Your task to perform on an android device: Go to internet settings Image 0: 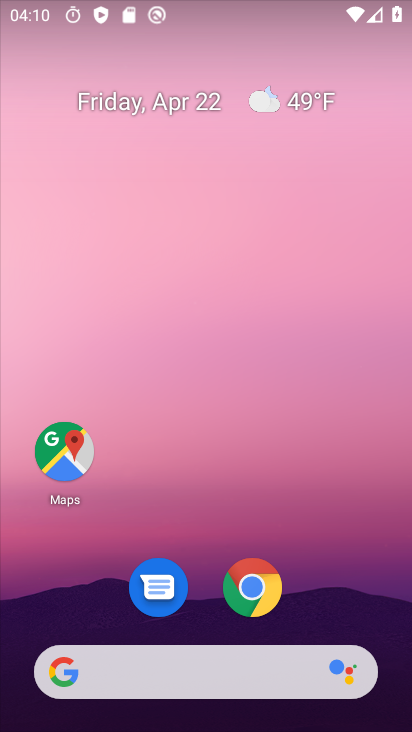
Step 0: drag from (363, 613) to (360, 33)
Your task to perform on an android device: Go to internet settings Image 1: 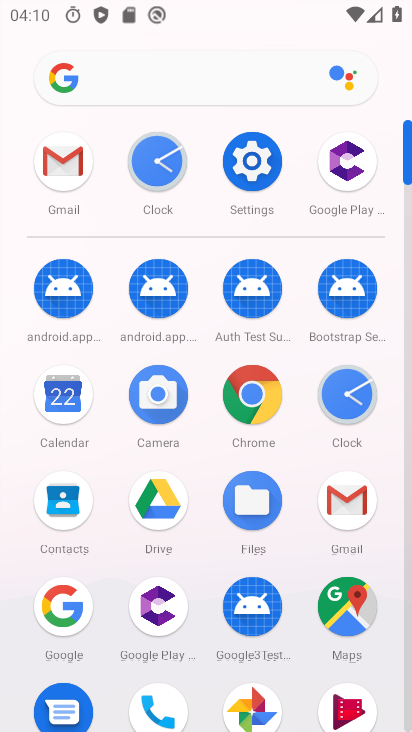
Step 1: click (251, 167)
Your task to perform on an android device: Go to internet settings Image 2: 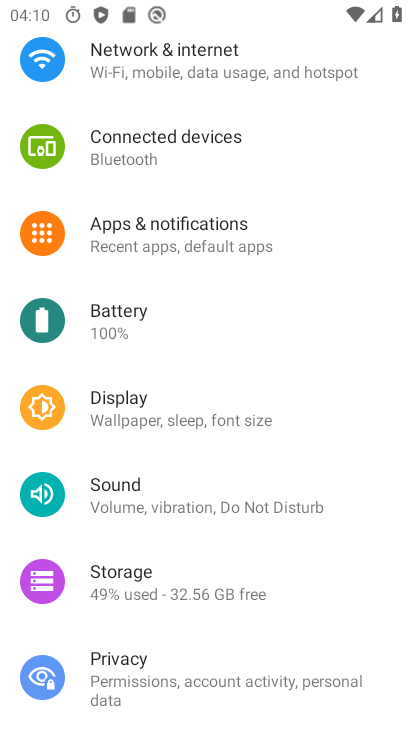
Step 2: click (177, 75)
Your task to perform on an android device: Go to internet settings Image 3: 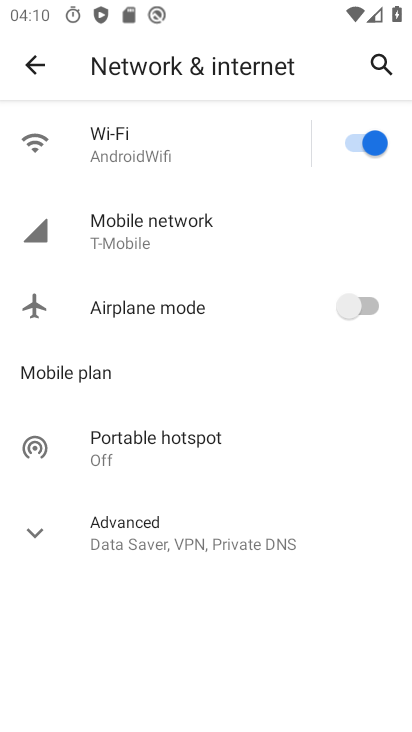
Step 3: click (35, 548)
Your task to perform on an android device: Go to internet settings Image 4: 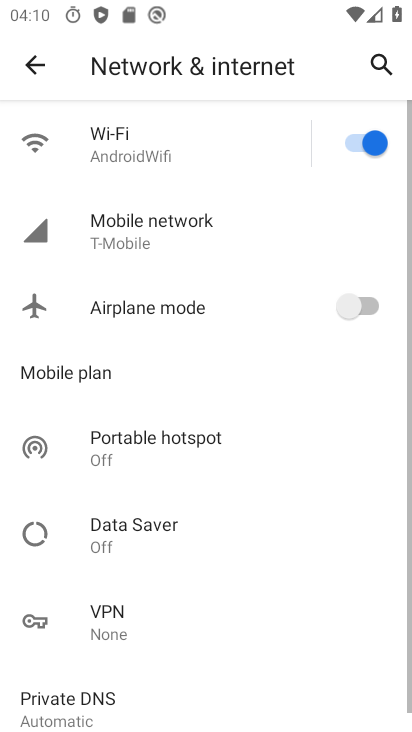
Step 4: task complete